Your task to perform on an android device: Open battery settings Image 0: 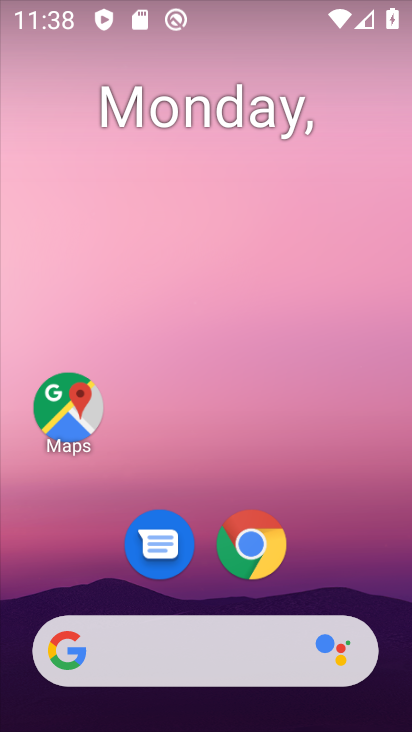
Step 0: drag from (273, 437) to (273, 28)
Your task to perform on an android device: Open battery settings Image 1: 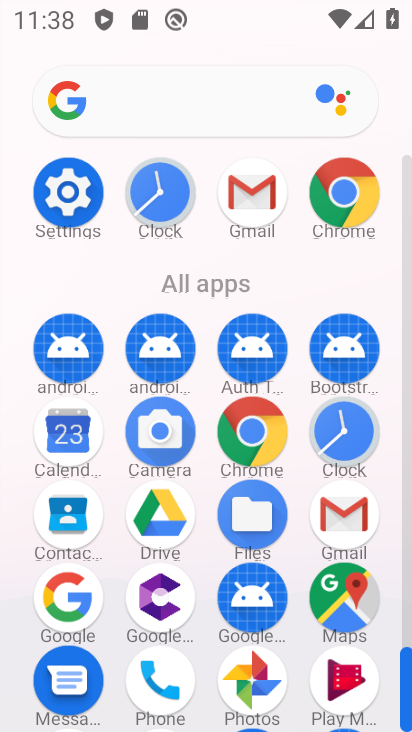
Step 1: click (73, 196)
Your task to perform on an android device: Open battery settings Image 2: 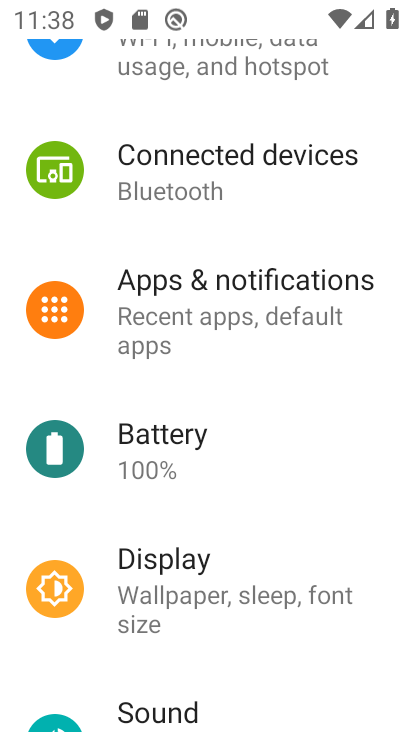
Step 2: click (131, 430)
Your task to perform on an android device: Open battery settings Image 3: 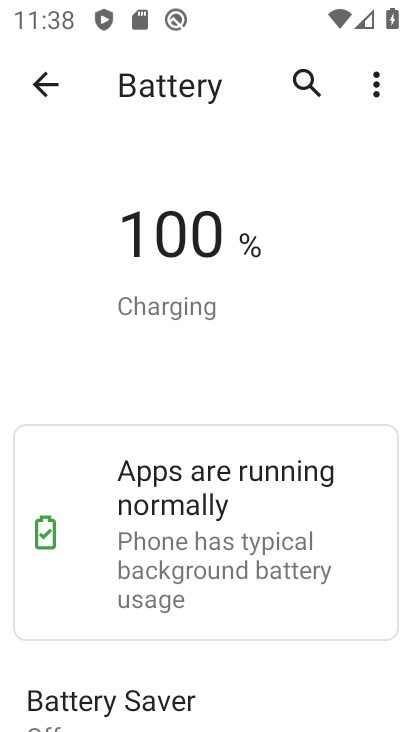
Step 3: task complete